Your task to perform on an android device: turn on improve location accuracy Image 0: 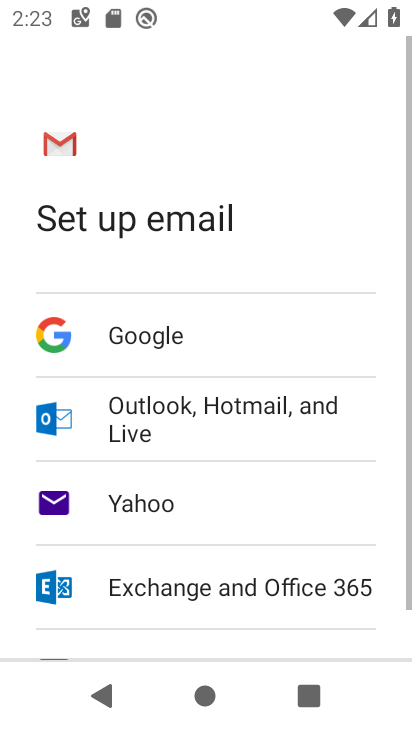
Step 0: press home button
Your task to perform on an android device: turn on improve location accuracy Image 1: 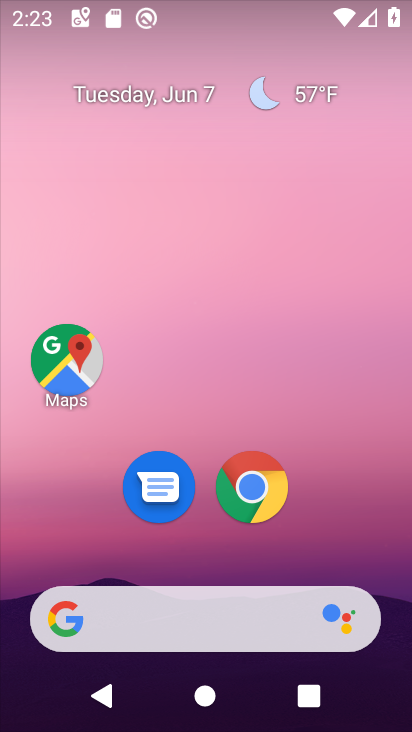
Step 1: drag from (171, 580) to (402, 222)
Your task to perform on an android device: turn on improve location accuracy Image 2: 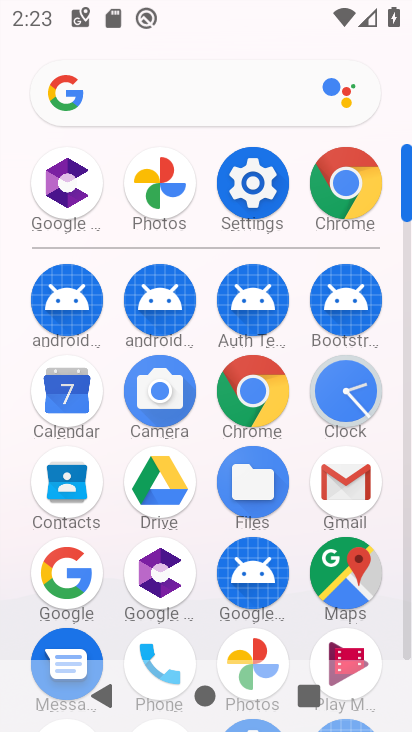
Step 2: click (243, 193)
Your task to perform on an android device: turn on improve location accuracy Image 3: 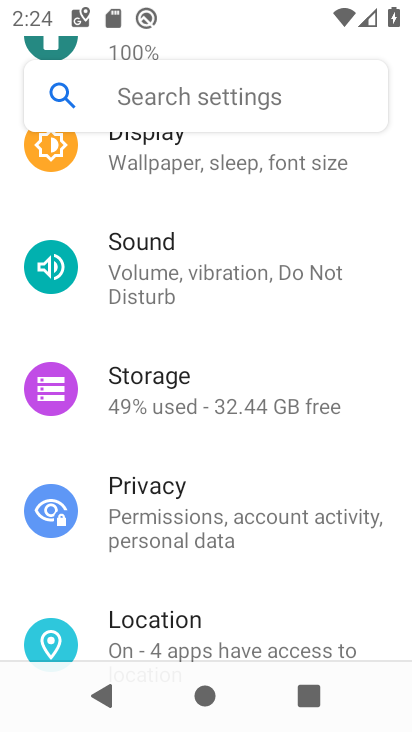
Step 3: click (177, 616)
Your task to perform on an android device: turn on improve location accuracy Image 4: 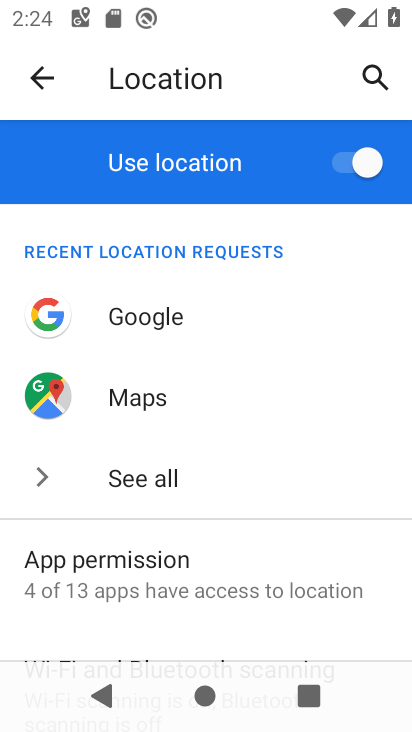
Step 4: drag from (187, 588) to (102, 38)
Your task to perform on an android device: turn on improve location accuracy Image 5: 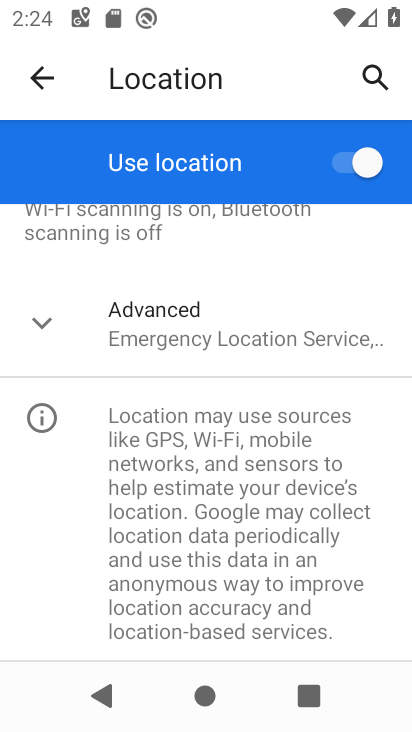
Step 5: click (179, 345)
Your task to perform on an android device: turn on improve location accuracy Image 6: 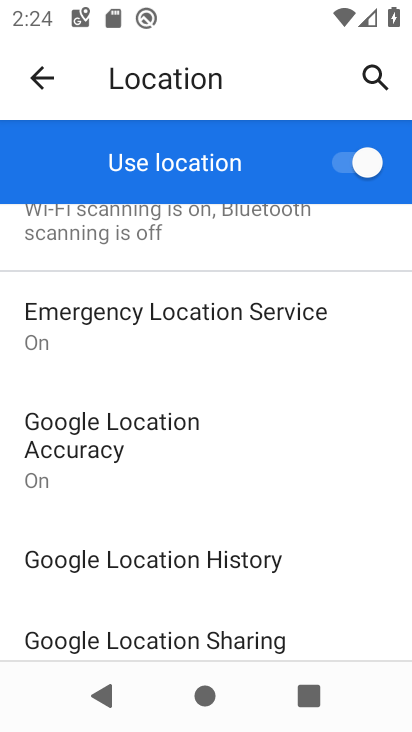
Step 6: drag from (208, 560) to (169, 257)
Your task to perform on an android device: turn on improve location accuracy Image 7: 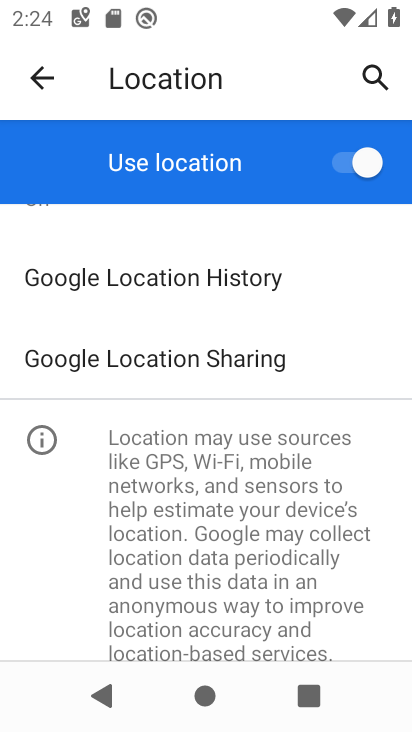
Step 7: click (130, 209)
Your task to perform on an android device: turn on improve location accuracy Image 8: 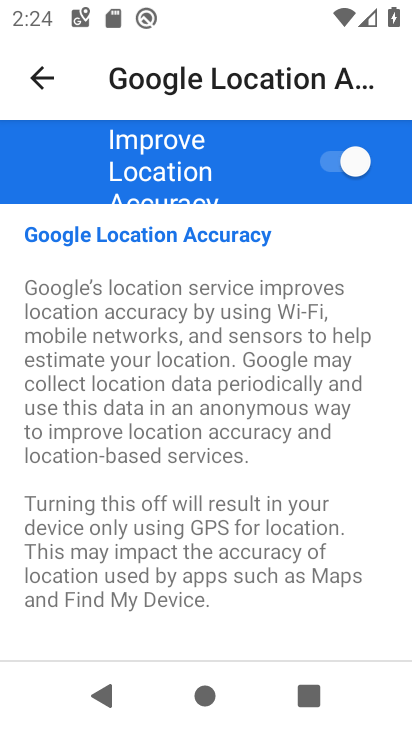
Step 8: task complete